Your task to perform on an android device: open app "Booking.com: Hotels and more" (install if not already installed) Image 0: 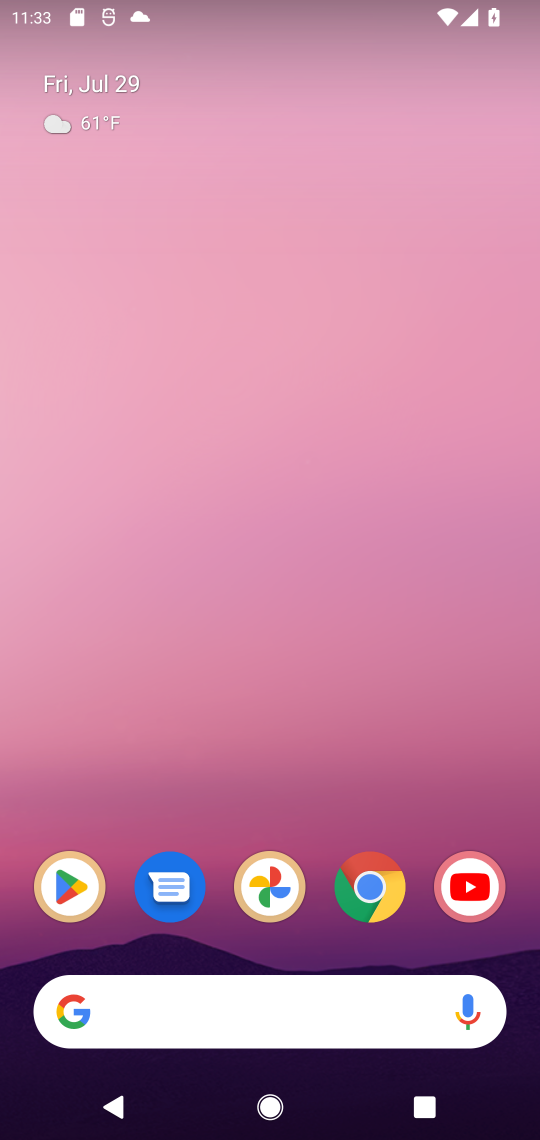
Step 0: drag from (207, 1030) to (368, 305)
Your task to perform on an android device: open app "Booking.com: Hotels and more" (install if not already installed) Image 1: 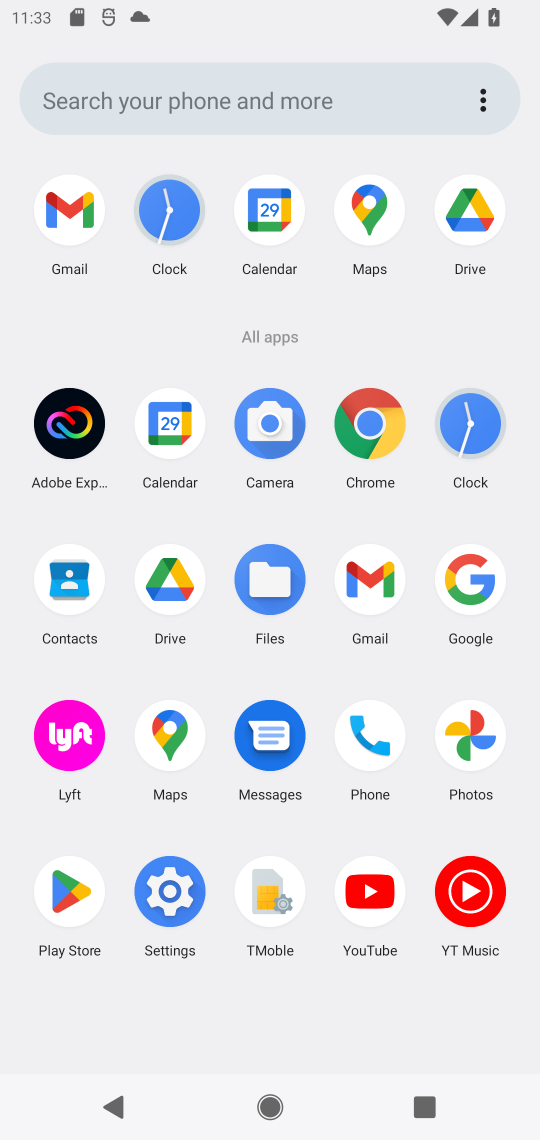
Step 1: click (71, 894)
Your task to perform on an android device: open app "Booking.com: Hotels and more" (install if not already installed) Image 2: 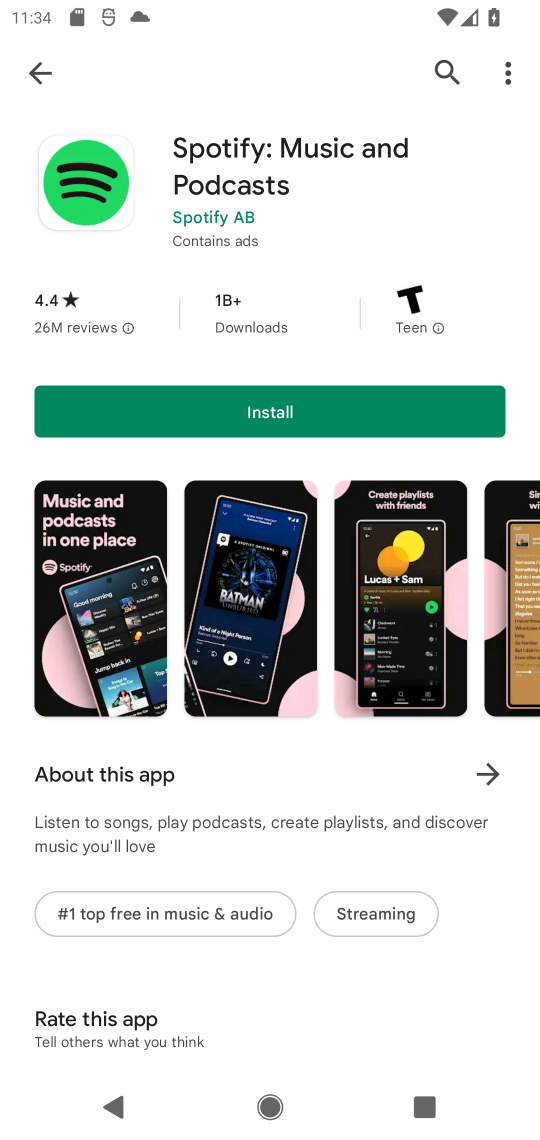
Step 2: click (441, 65)
Your task to perform on an android device: open app "Booking.com: Hotels and more" (install if not already installed) Image 3: 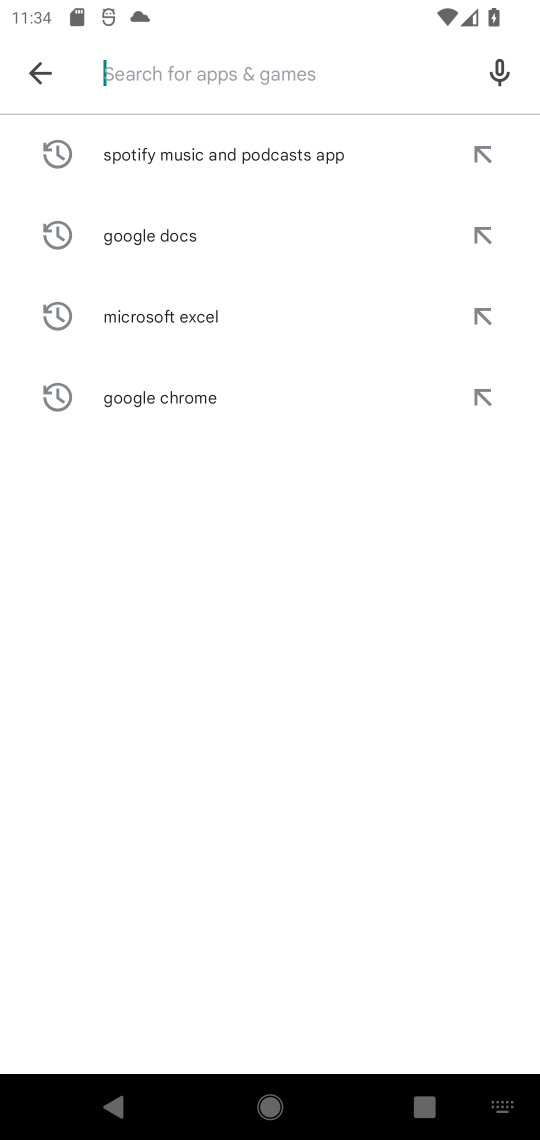
Step 3: click (148, 71)
Your task to perform on an android device: open app "Booking.com: Hotels and more" (install if not already installed) Image 4: 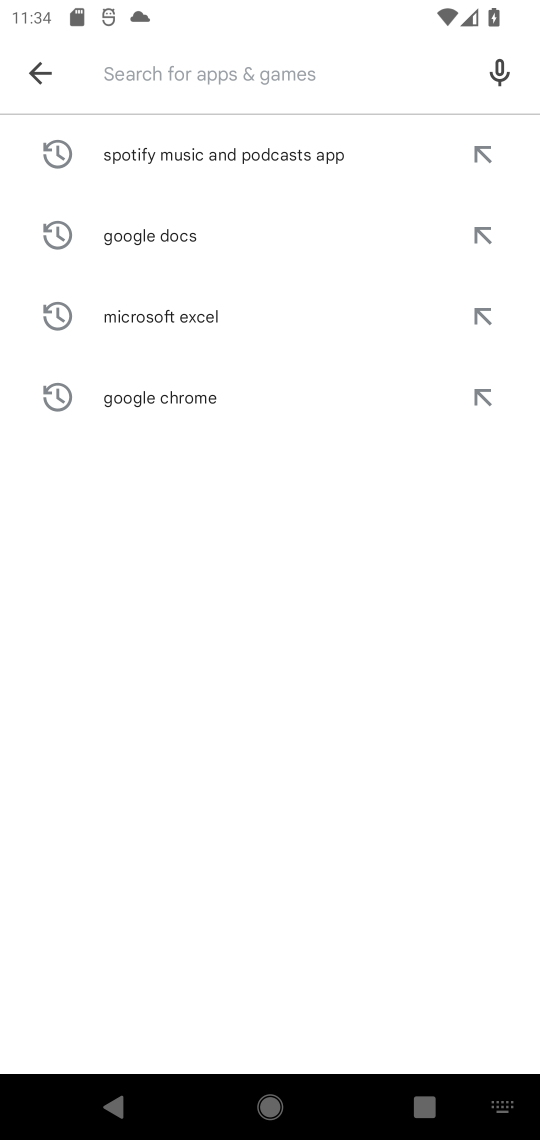
Step 4: type "Booking.com: Hotels and more"
Your task to perform on an android device: open app "Booking.com: Hotels and more" (install if not already installed) Image 5: 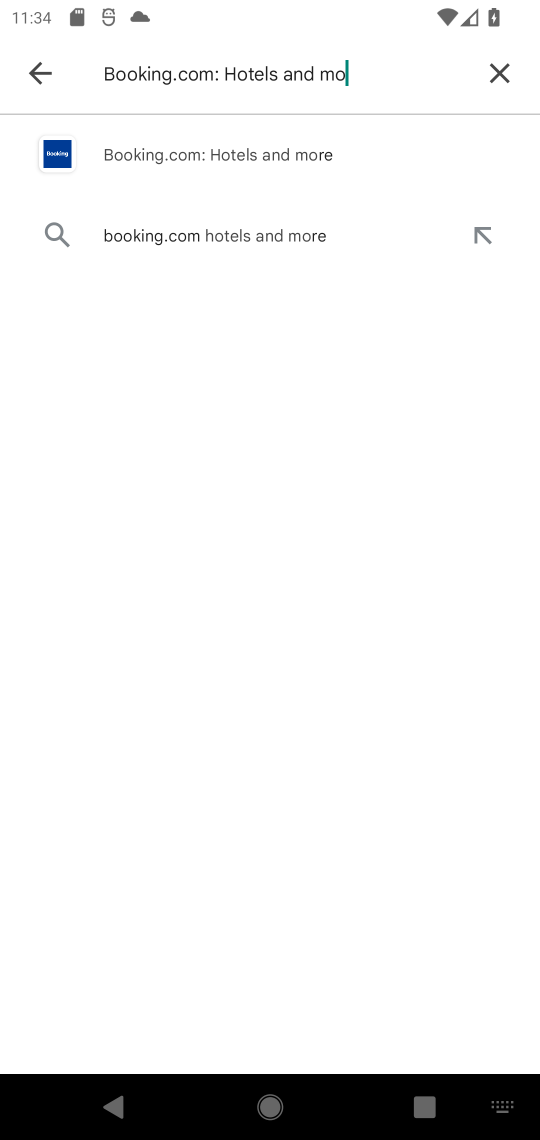
Step 5: type ""
Your task to perform on an android device: open app "Booking.com: Hotels and more" (install if not already installed) Image 6: 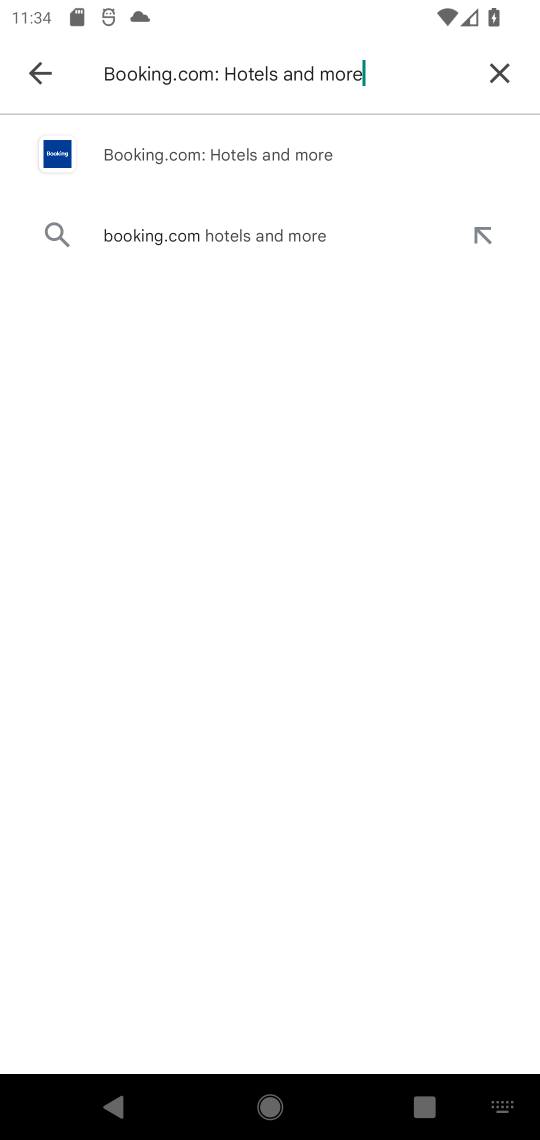
Step 6: click (245, 157)
Your task to perform on an android device: open app "Booking.com: Hotels and more" (install if not already installed) Image 7: 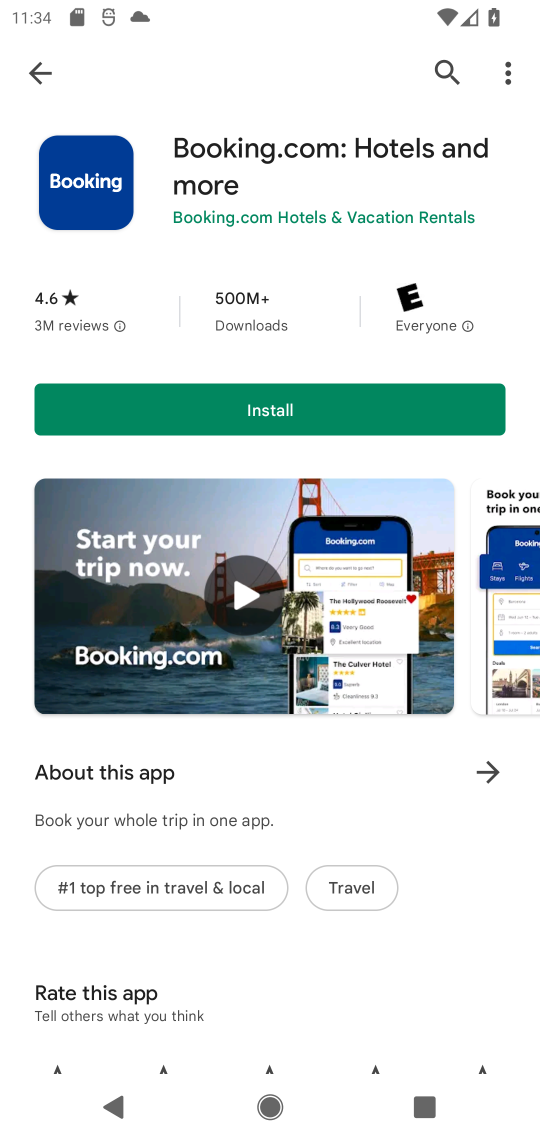
Step 7: click (255, 413)
Your task to perform on an android device: open app "Booking.com: Hotels and more" (install if not already installed) Image 8: 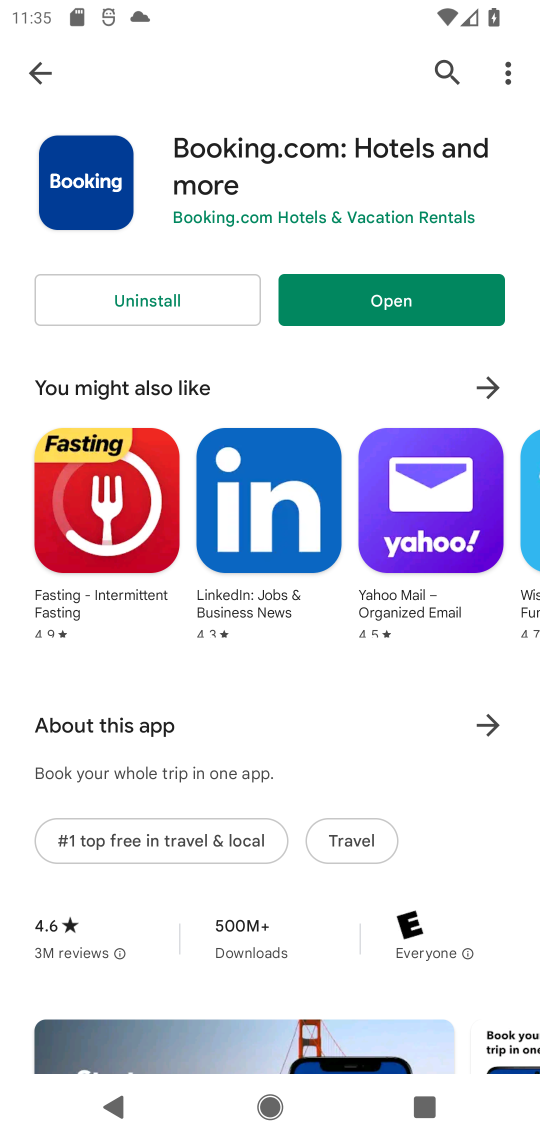
Step 8: click (427, 302)
Your task to perform on an android device: open app "Booking.com: Hotels and more" (install if not already installed) Image 9: 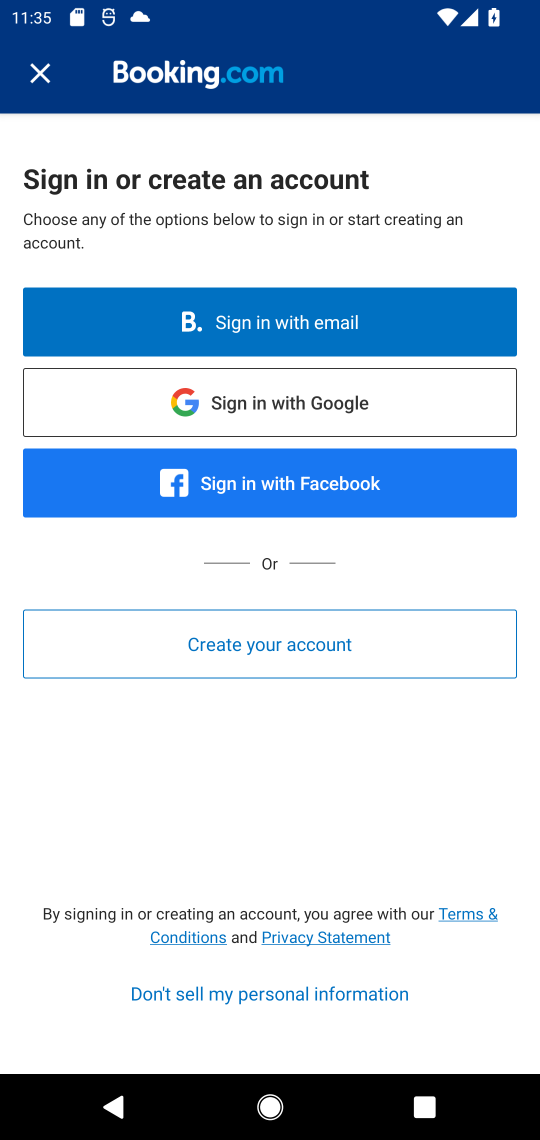
Step 9: task complete